Your task to perform on an android device: see tabs open on other devices in the chrome app Image 0: 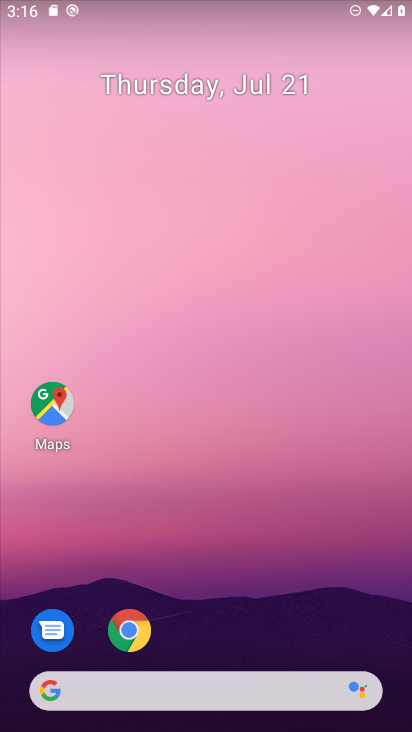
Step 0: click (126, 619)
Your task to perform on an android device: see tabs open on other devices in the chrome app Image 1: 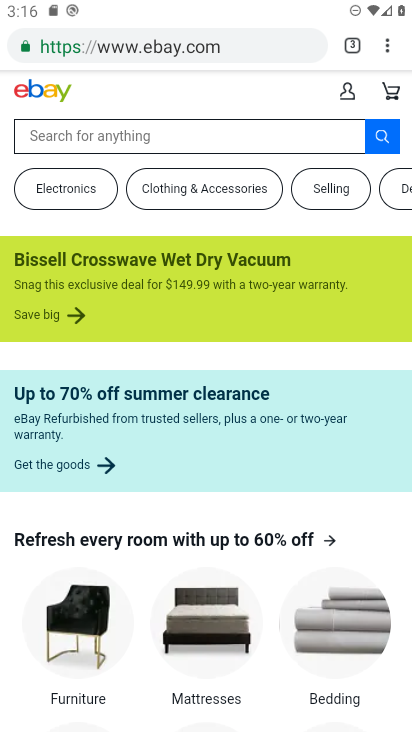
Step 1: task complete